Your task to perform on an android device: Go to network settings Image 0: 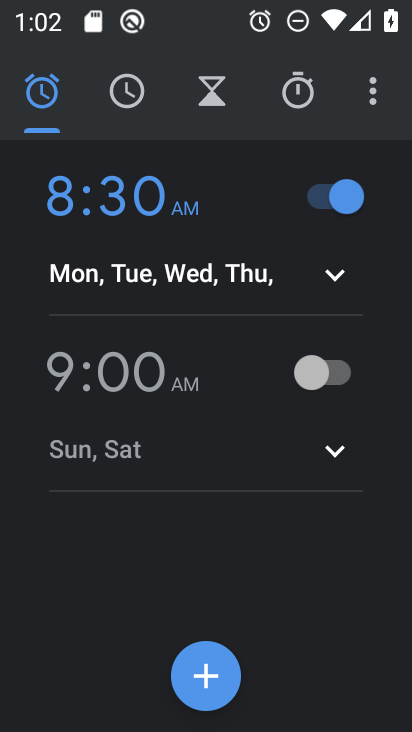
Step 0: press home button
Your task to perform on an android device: Go to network settings Image 1: 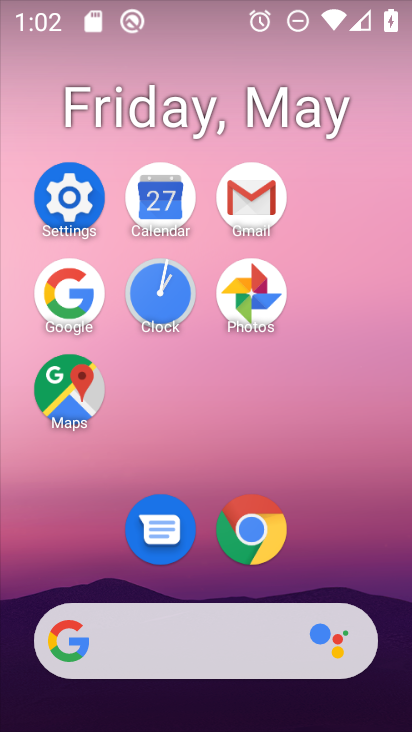
Step 1: click (55, 180)
Your task to perform on an android device: Go to network settings Image 2: 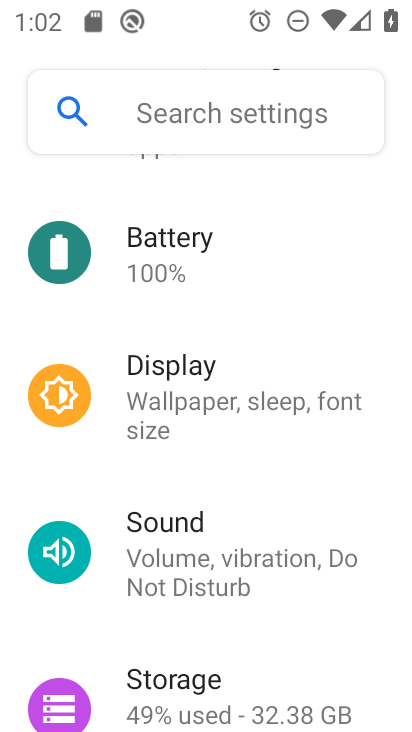
Step 2: drag from (277, 228) to (245, 688)
Your task to perform on an android device: Go to network settings Image 3: 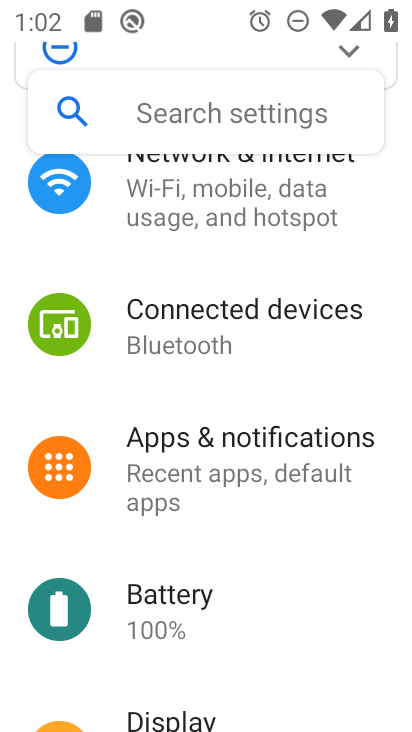
Step 3: click (271, 181)
Your task to perform on an android device: Go to network settings Image 4: 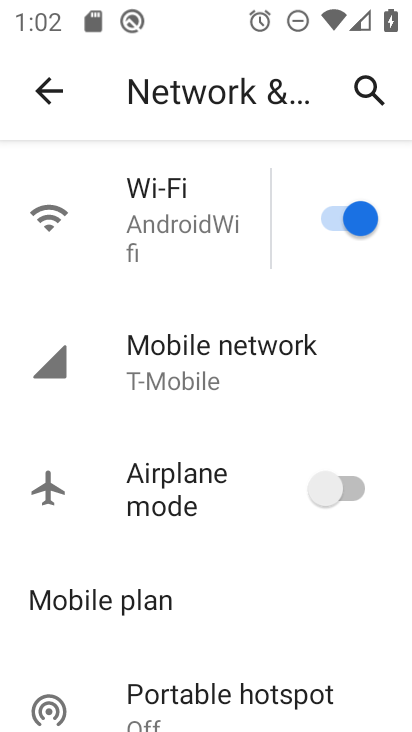
Step 4: task complete